Your task to perform on an android device: Open Youtube and go to the subscriptions tab Image 0: 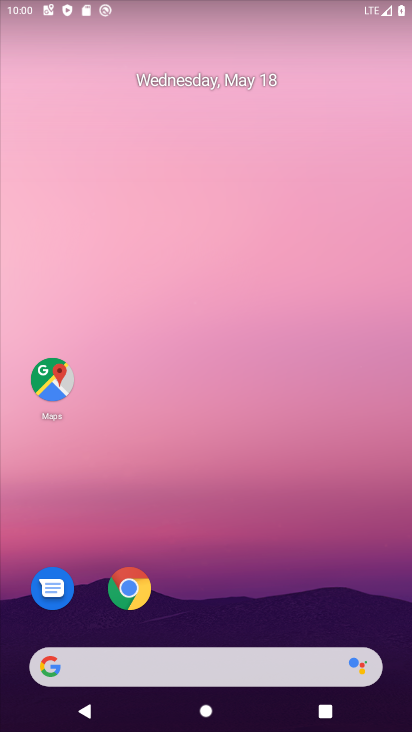
Step 0: drag from (357, 627) to (410, 584)
Your task to perform on an android device: Open Youtube and go to the subscriptions tab Image 1: 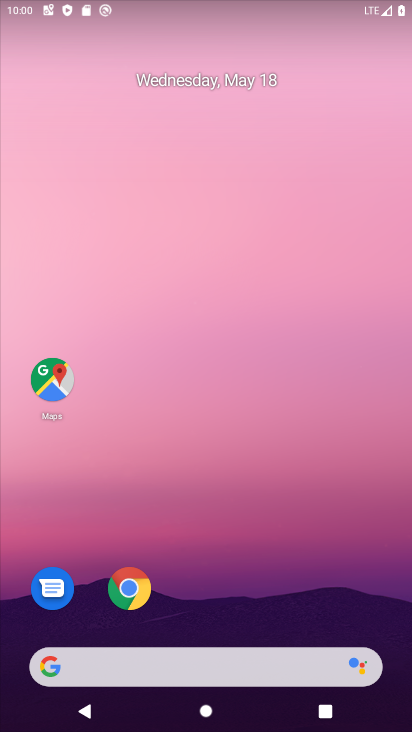
Step 1: click (362, 656)
Your task to perform on an android device: Open Youtube and go to the subscriptions tab Image 2: 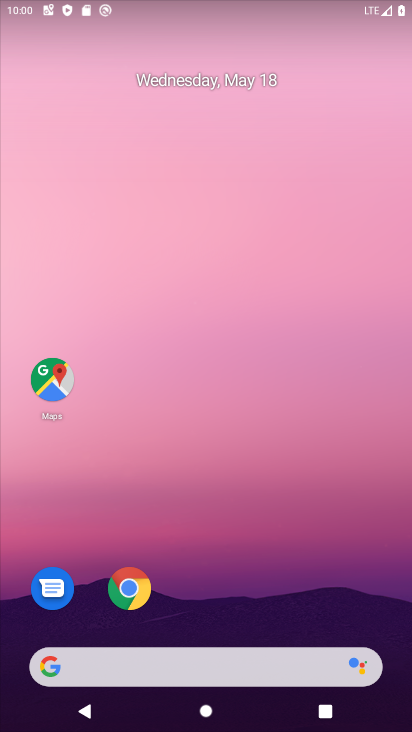
Step 2: drag from (362, 655) to (394, 28)
Your task to perform on an android device: Open Youtube and go to the subscriptions tab Image 3: 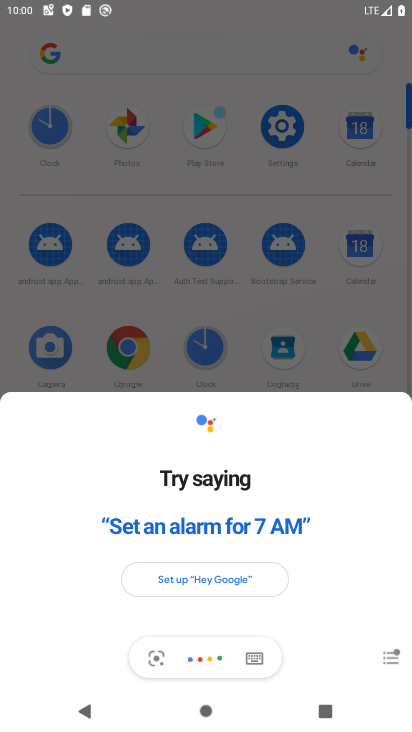
Step 3: drag from (400, 345) to (401, 307)
Your task to perform on an android device: Open Youtube and go to the subscriptions tab Image 4: 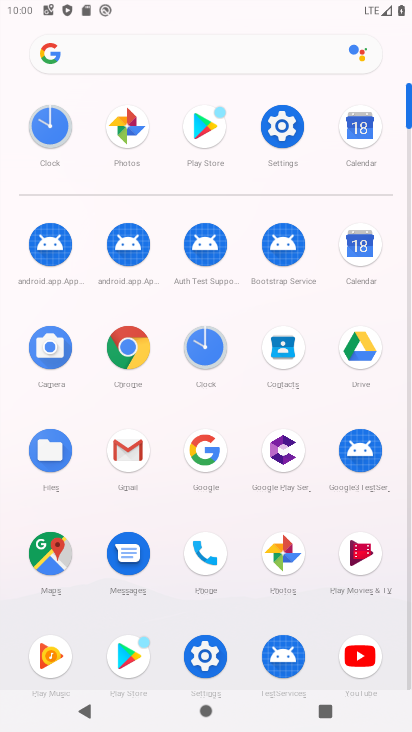
Step 4: click (371, 664)
Your task to perform on an android device: Open Youtube and go to the subscriptions tab Image 5: 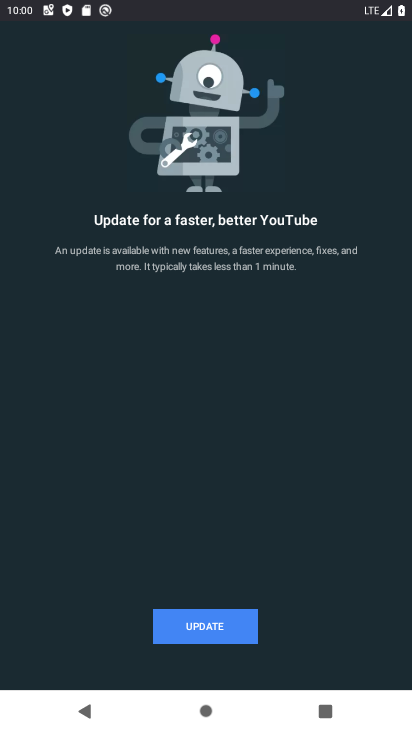
Step 5: click (210, 622)
Your task to perform on an android device: Open Youtube and go to the subscriptions tab Image 6: 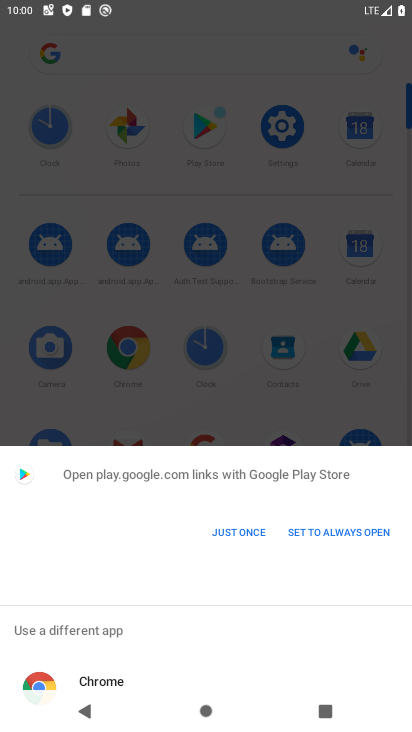
Step 6: click (109, 480)
Your task to perform on an android device: Open Youtube and go to the subscriptions tab Image 7: 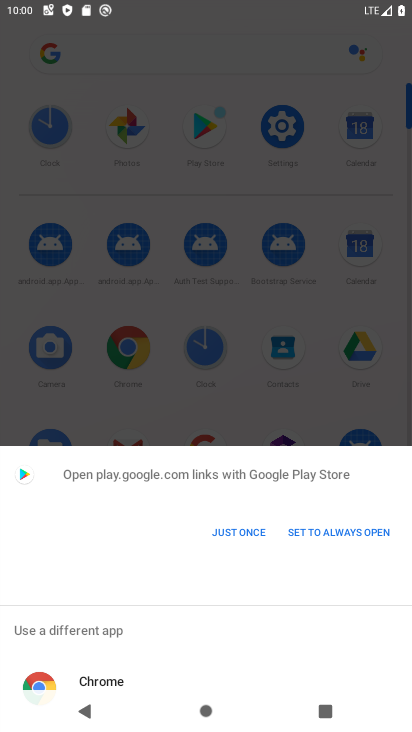
Step 7: click (223, 531)
Your task to perform on an android device: Open Youtube and go to the subscriptions tab Image 8: 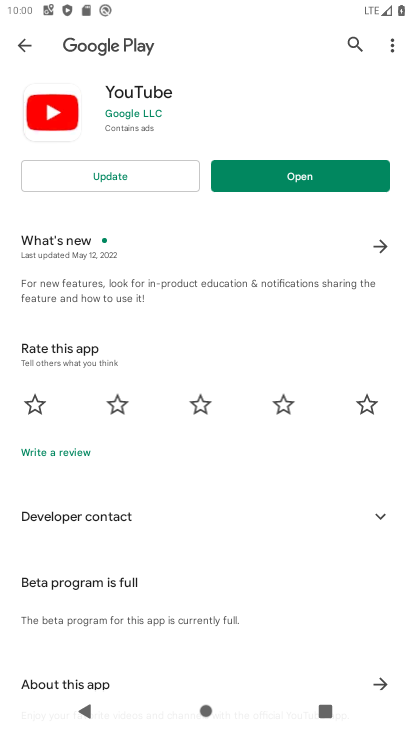
Step 8: click (117, 173)
Your task to perform on an android device: Open Youtube and go to the subscriptions tab Image 9: 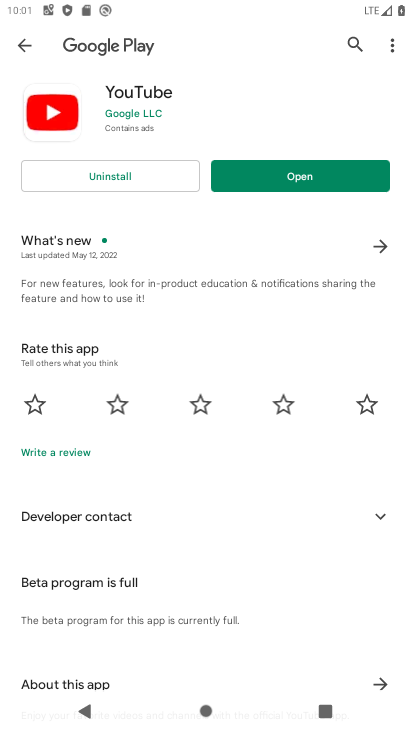
Step 9: click (325, 172)
Your task to perform on an android device: Open Youtube and go to the subscriptions tab Image 10: 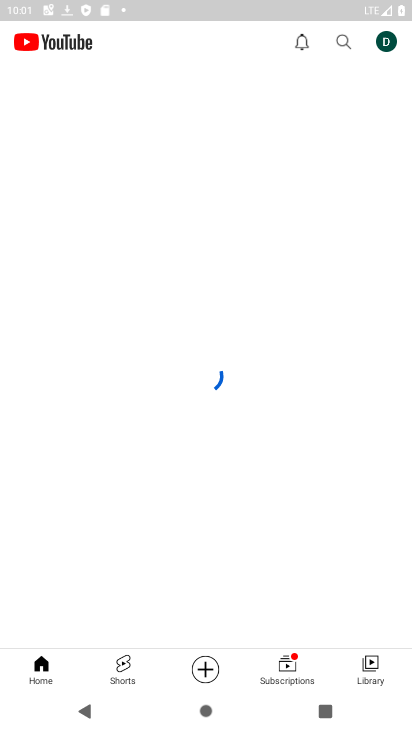
Step 10: click (256, 665)
Your task to perform on an android device: Open Youtube and go to the subscriptions tab Image 11: 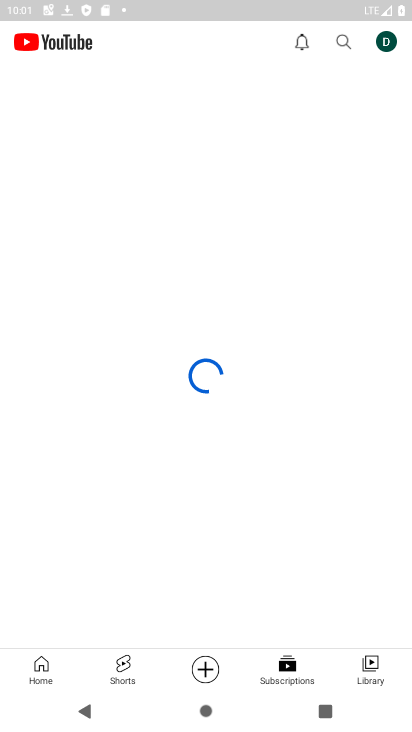
Step 11: click (281, 663)
Your task to perform on an android device: Open Youtube and go to the subscriptions tab Image 12: 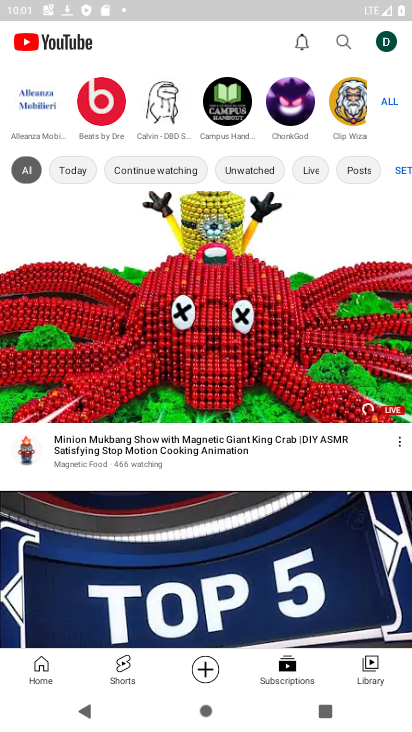
Step 12: click (292, 668)
Your task to perform on an android device: Open Youtube and go to the subscriptions tab Image 13: 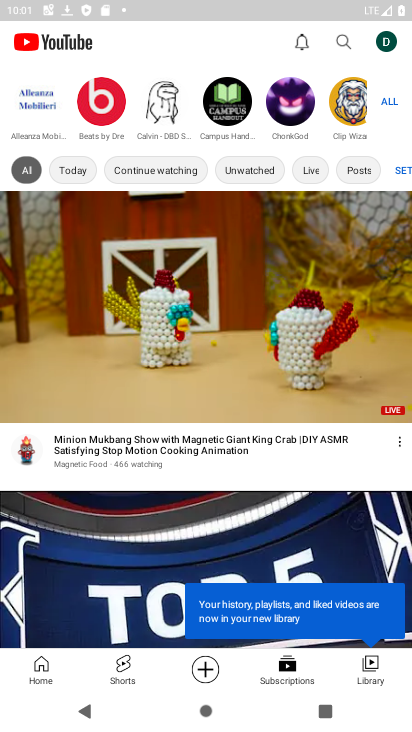
Step 13: click (286, 679)
Your task to perform on an android device: Open Youtube and go to the subscriptions tab Image 14: 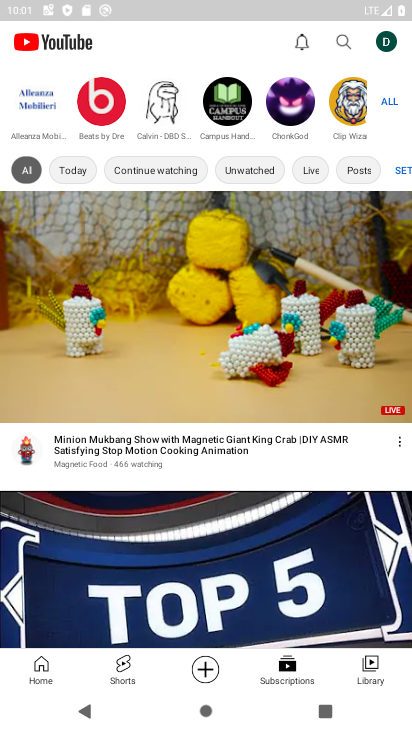
Step 14: click (286, 679)
Your task to perform on an android device: Open Youtube and go to the subscriptions tab Image 15: 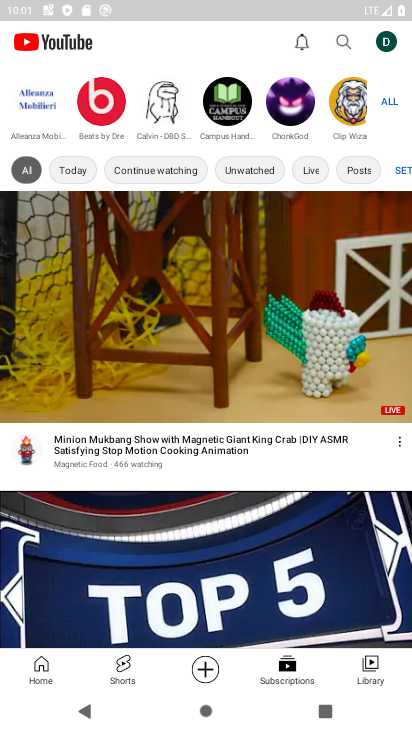
Step 15: task complete